Your task to perform on an android device: turn pop-ups on in chrome Image 0: 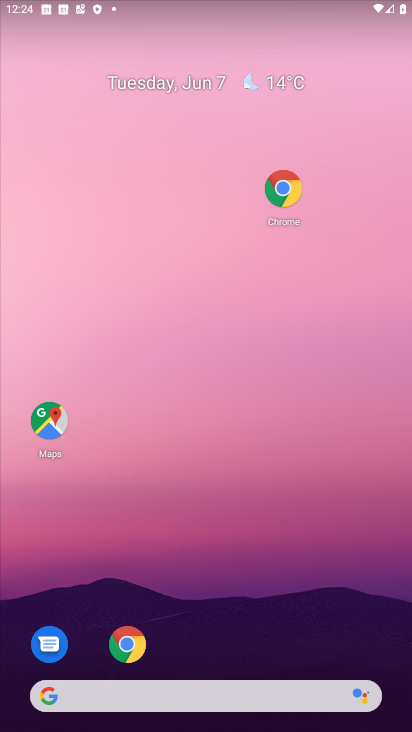
Step 0: click (283, 183)
Your task to perform on an android device: turn pop-ups on in chrome Image 1: 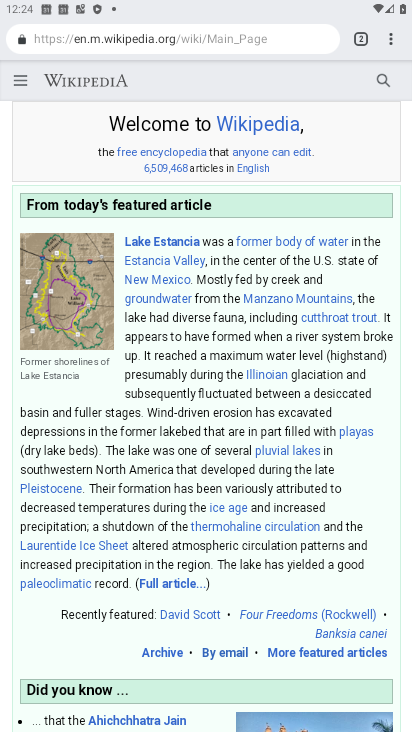
Step 1: click (385, 36)
Your task to perform on an android device: turn pop-ups on in chrome Image 2: 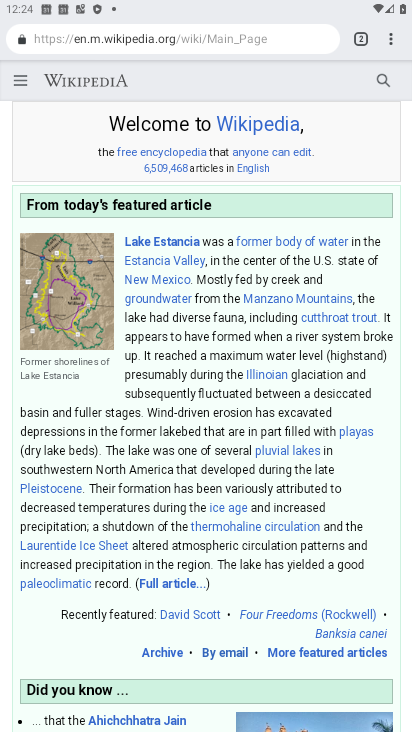
Step 2: drag from (382, 30) to (246, 482)
Your task to perform on an android device: turn pop-ups on in chrome Image 3: 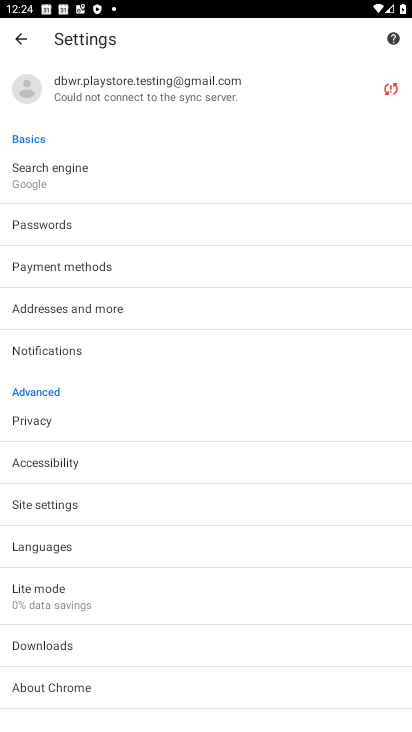
Step 3: click (55, 508)
Your task to perform on an android device: turn pop-ups on in chrome Image 4: 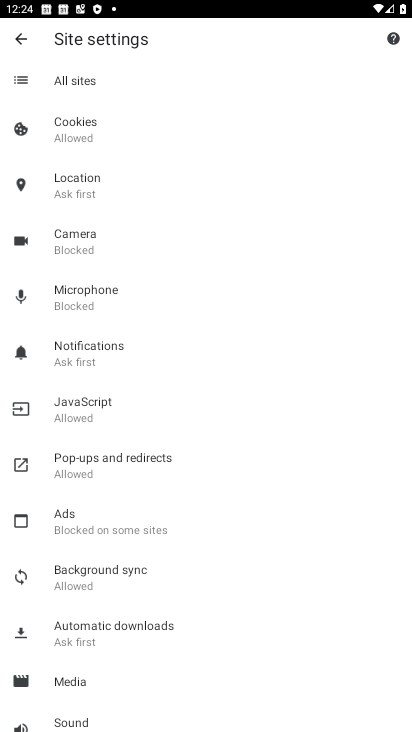
Step 4: click (146, 474)
Your task to perform on an android device: turn pop-ups on in chrome Image 5: 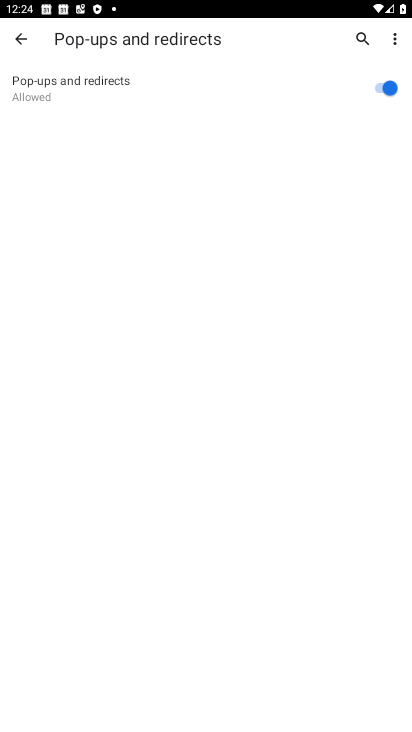
Step 5: task complete